Your task to perform on an android device: turn vacation reply on in the gmail app Image 0: 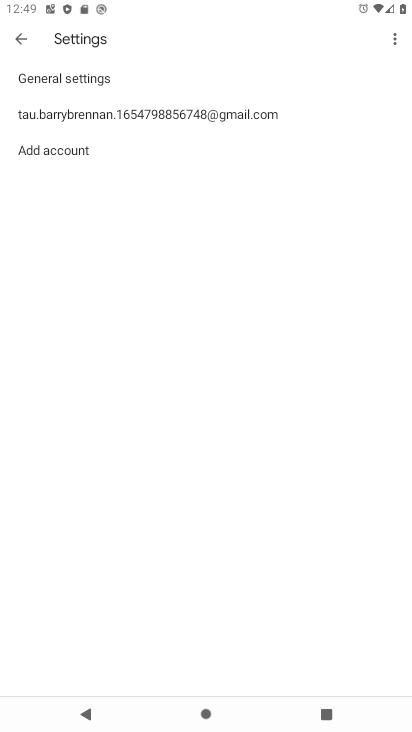
Step 0: press back button
Your task to perform on an android device: turn vacation reply on in the gmail app Image 1: 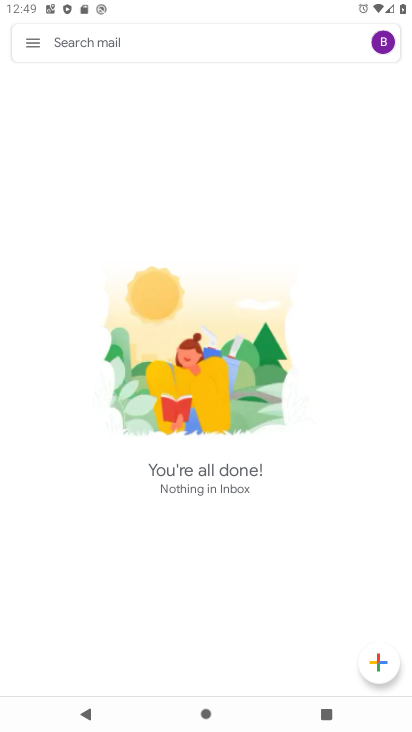
Step 1: click (23, 40)
Your task to perform on an android device: turn vacation reply on in the gmail app Image 2: 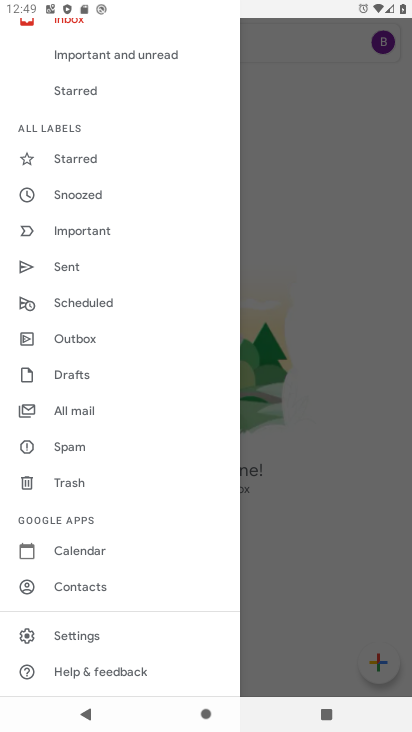
Step 2: click (91, 625)
Your task to perform on an android device: turn vacation reply on in the gmail app Image 3: 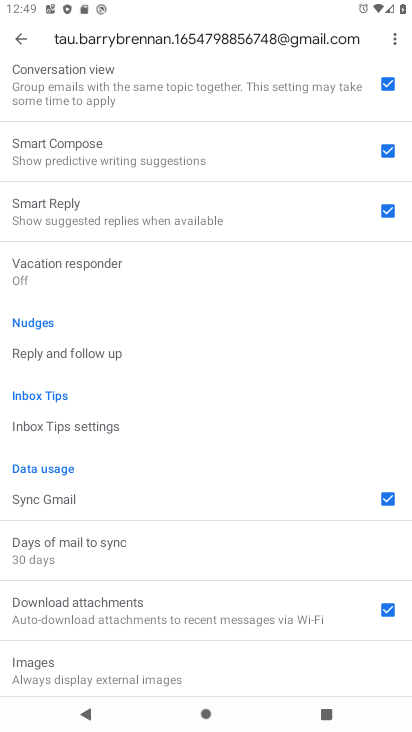
Step 3: click (119, 266)
Your task to perform on an android device: turn vacation reply on in the gmail app Image 4: 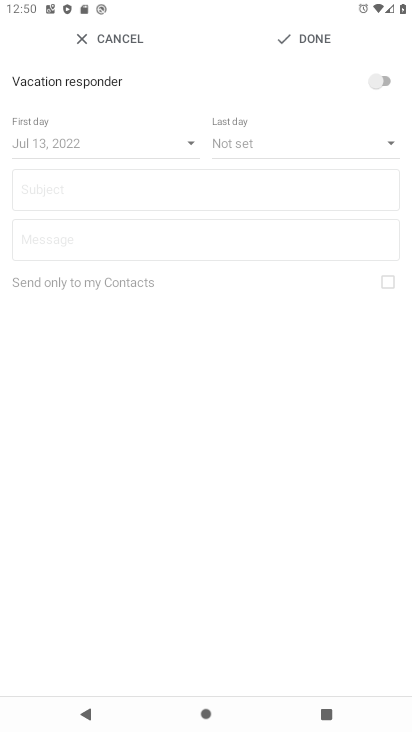
Step 4: click (380, 83)
Your task to perform on an android device: turn vacation reply on in the gmail app Image 5: 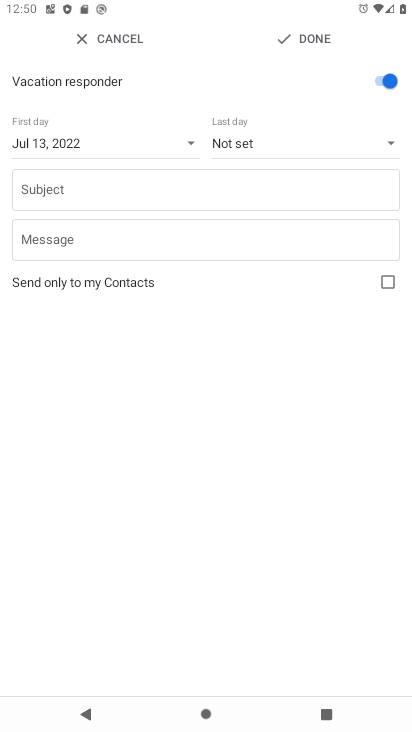
Step 5: task complete